Your task to perform on an android device: Open Chrome and go to settings Image 0: 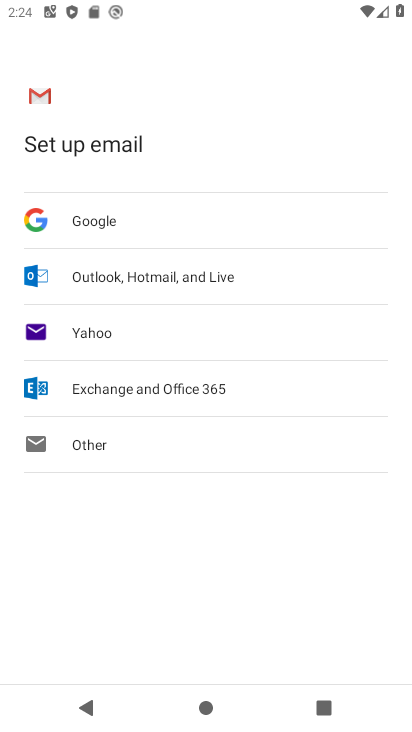
Step 0: press home button
Your task to perform on an android device: Open Chrome and go to settings Image 1: 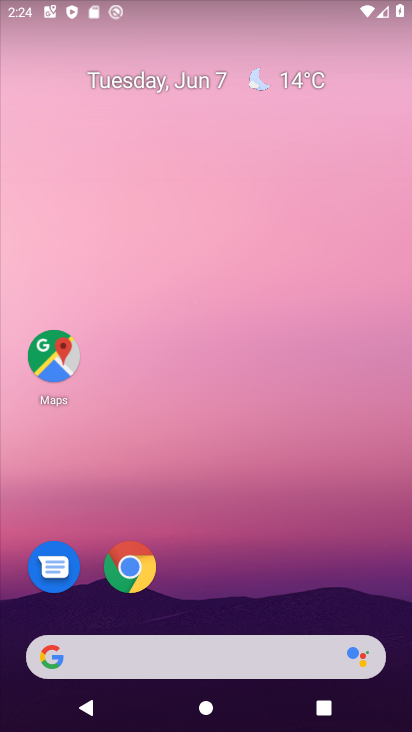
Step 1: click (141, 547)
Your task to perform on an android device: Open Chrome and go to settings Image 2: 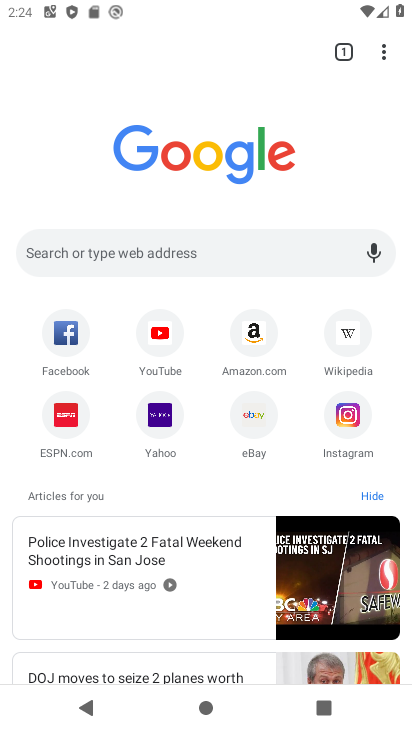
Step 2: click (381, 62)
Your task to perform on an android device: Open Chrome and go to settings Image 3: 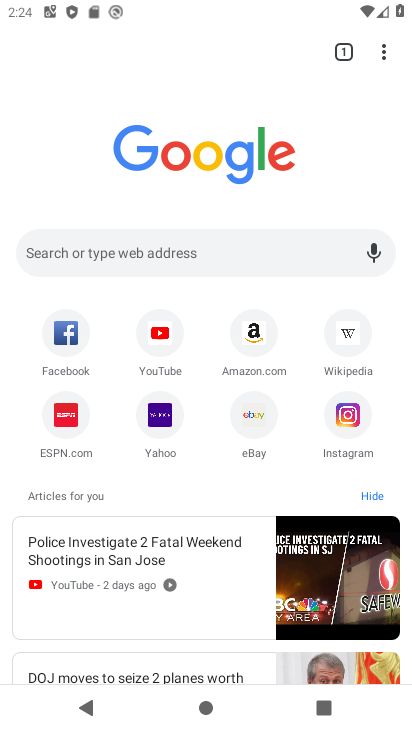
Step 3: task complete